Your task to perform on an android device: turn vacation reply on in the gmail app Image 0: 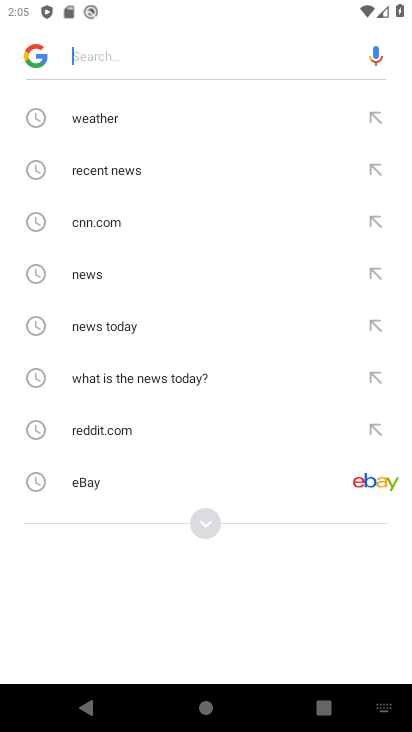
Step 0: press home button
Your task to perform on an android device: turn vacation reply on in the gmail app Image 1: 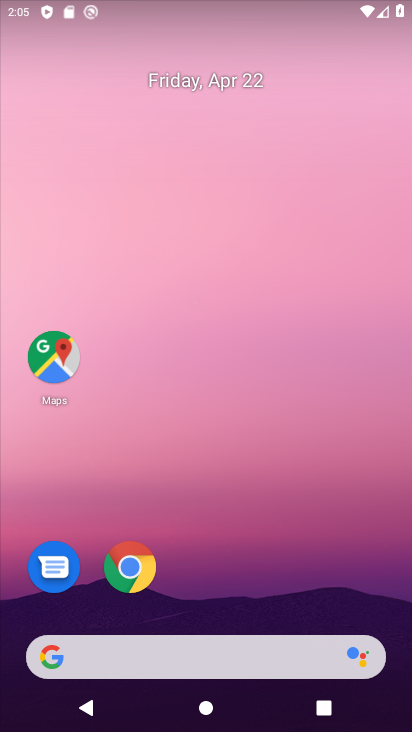
Step 1: drag from (236, 492) to (199, 107)
Your task to perform on an android device: turn vacation reply on in the gmail app Image 2: 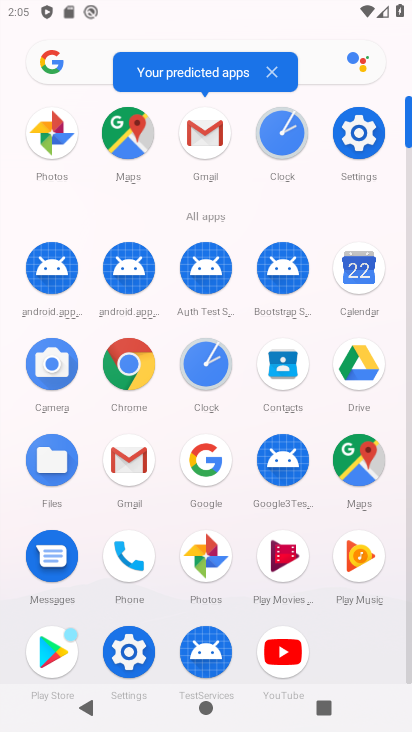
Step 2: click (201, 132)
Your task to perform on an android device: turn vacation reply on in the gmail app Image 3: 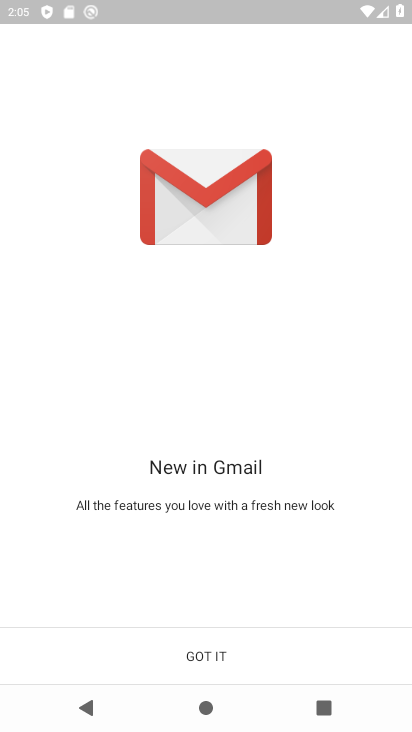
Step 3: click (205, 642)
Your task to perform on an android device: turn vacation reply on in the gmail app Image 4: 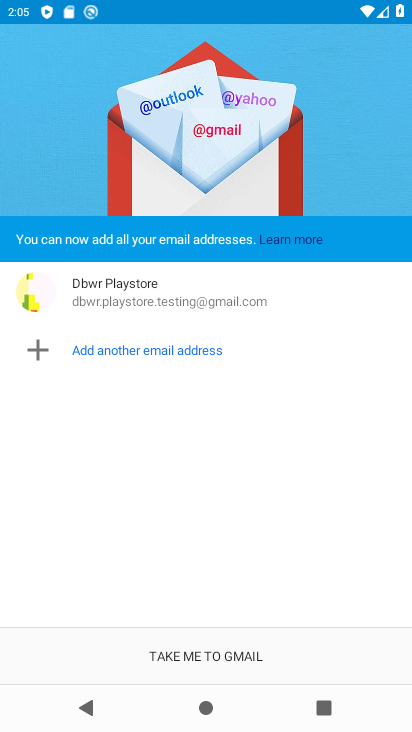
Step 4: click (205, 642)
Your task to perform on an android device: turn vacation reply on in the gmail app Image 5: 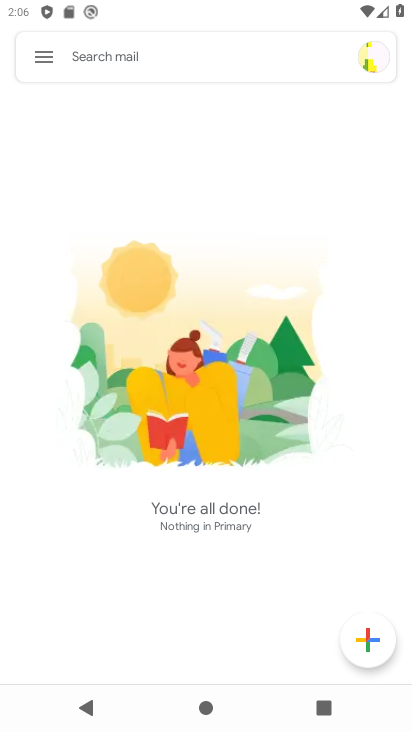
Step 5: click (47, 54)
Your task to perform on an android device: turn vacation reply on in the gmail app Image 6: 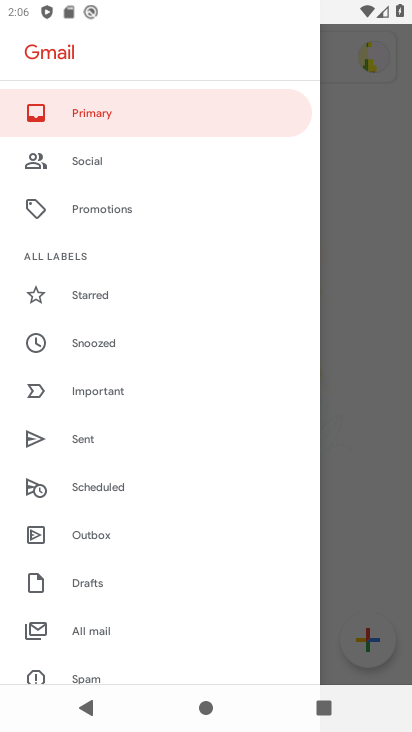
Step 6: drag from (154, 617) to (158, 371)
Your task to perform on an android device: turn vacation reply on in the gmail app Image 7: 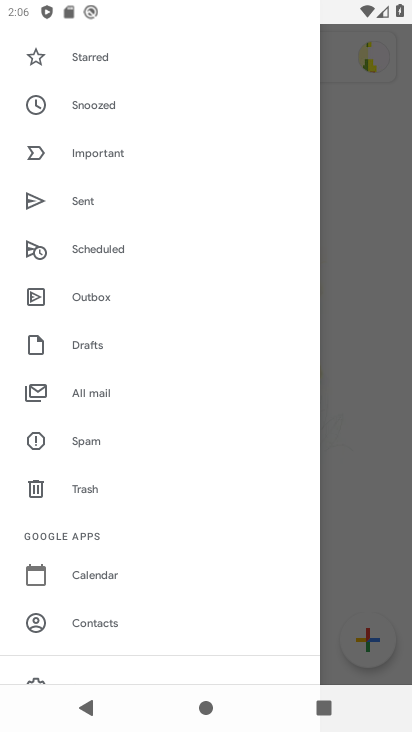
Step 7: drag from (143, 550) to (146, 302)
Your task to perform on an android device: turn vacation reply on in the gmail app Image 8: 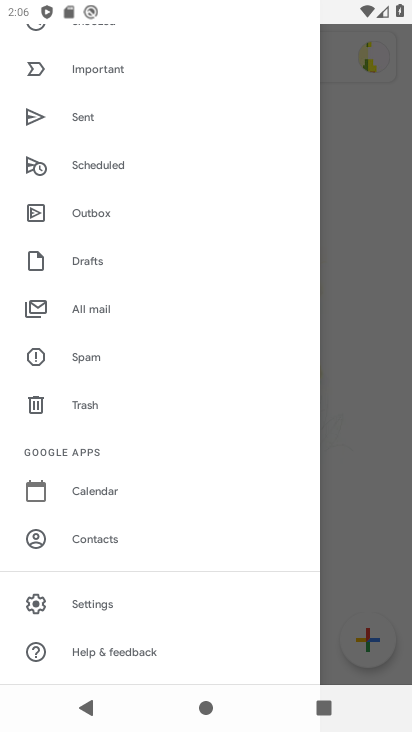
Step 8: click (114, 598)
Your task to perform on an android device: turn vacation reply on in the gmail app Image 9: 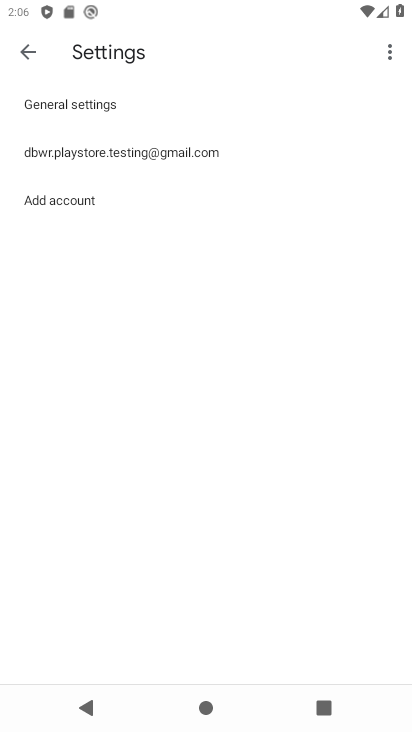
Step 9: click (137, 147)
Your task to perform on an android device: turn vacation reply on in the gmail app Image 10: 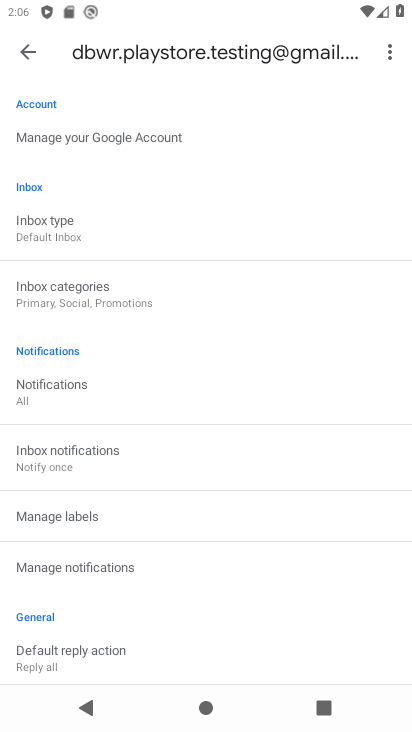
Step 10: drag from (138, 570) to (125, 265)
Your task to perform on an android device: turn vacation reply on in the gmail app Image 11: 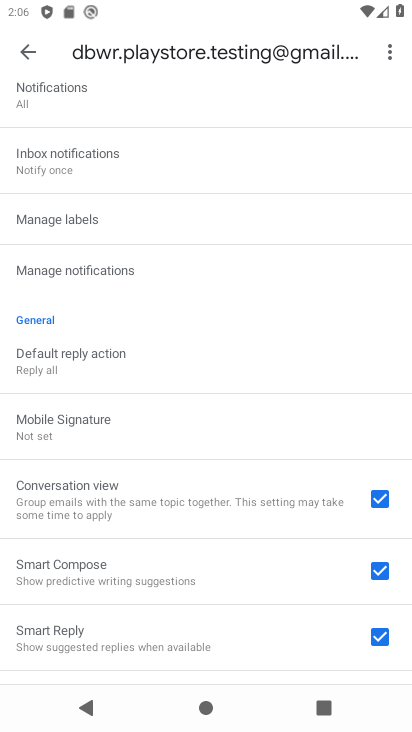
Step 11: drag from (147, 505) to (145, 247)
Your task to perform on an android device: turn vacation reply on in the gmail app Image 12: 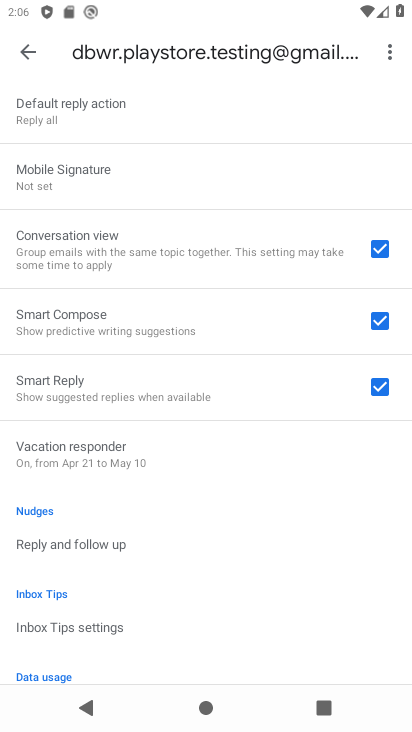
Step 12: click (110, 456)
Your task to perform on an android device: turn vacation reply on in the gmail app Image 13: 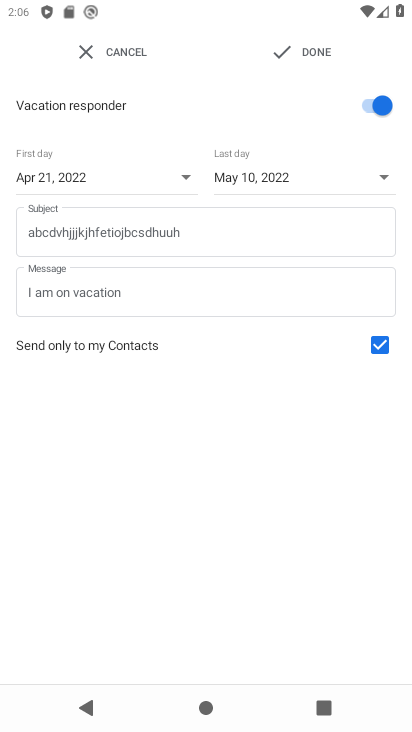
Step 13: click (314, 41)
Your task to perform on an android device: turn vacation reply on in the gmail app Image 14: 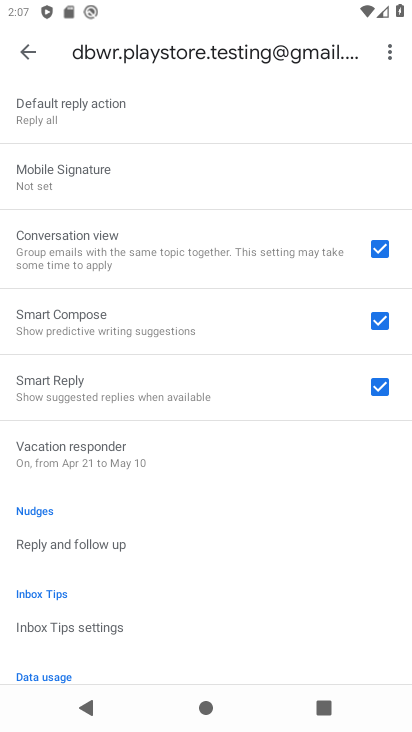
Step 14: task complete